Your task to perform on an android device: find snoozed emails in the gmail app Image 0: 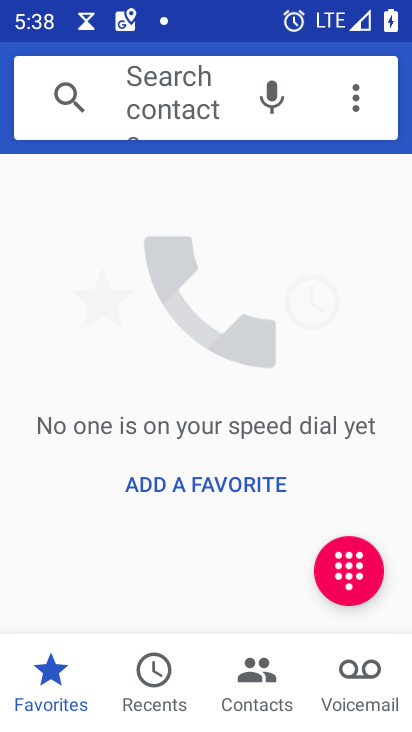
Step 0: press home button
Your task to perform on an android device: find snoozed emails in the gmail app Image 1: 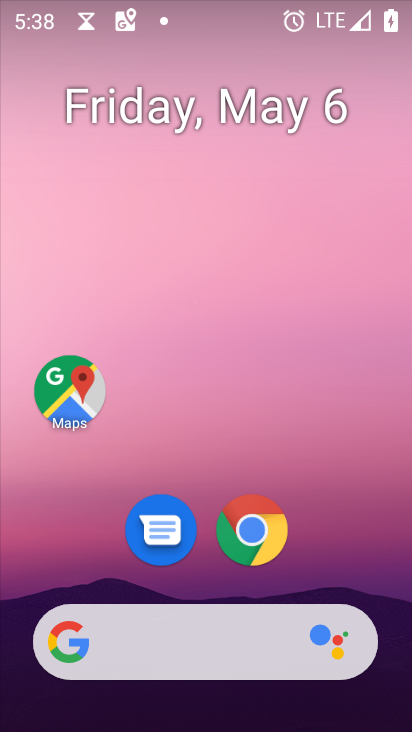
Step 1: drag from (355, 545) to (218, 79)
Your task to perform on an android device: find snoozed emails in the gmail app Image 2: 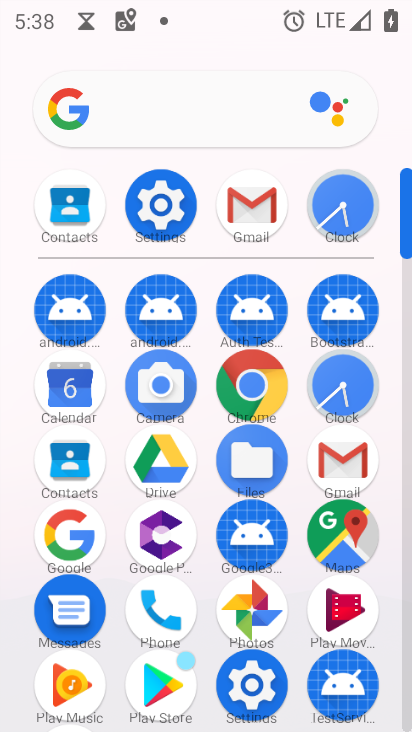
Step 2: click (344, 456)
Your task to perform on an android device: find snoozed emails in the gmail app Image 3: 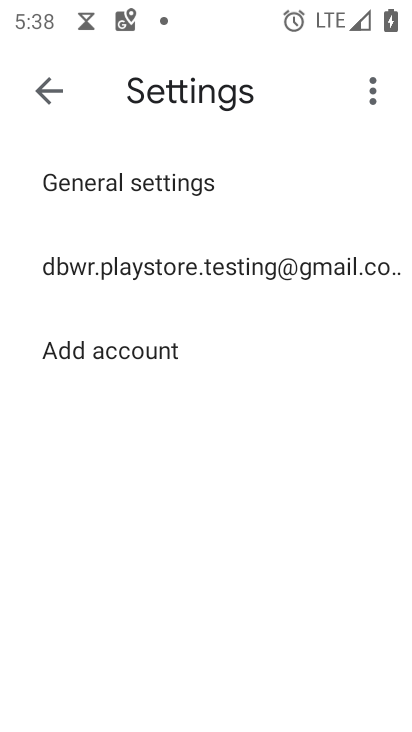
Step 3: click (45, 94)
Your task to perform on an android device: find snoozed emails in the gmail app Image 4: 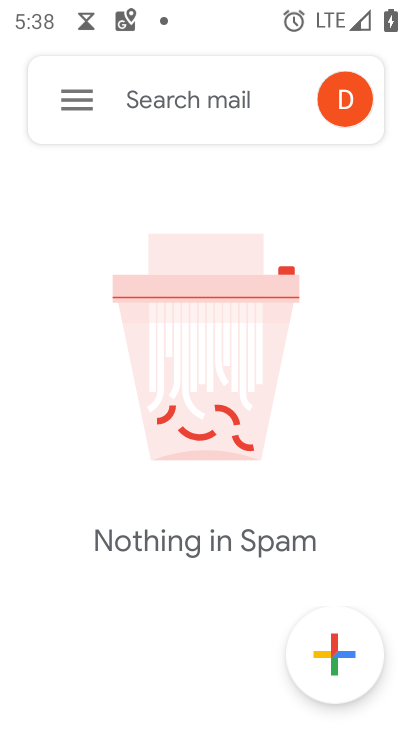
Step 4: click (75, 98)
Your task to perform on an android device: find snoozed emails in the gmail app Image 5: 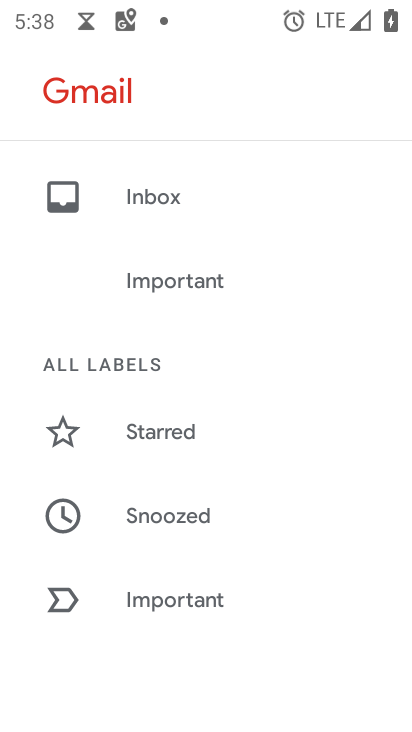
Step 5: click (194, 517)
Your task to perform on an android device: find snoozed emails in the gmail app Image 6: 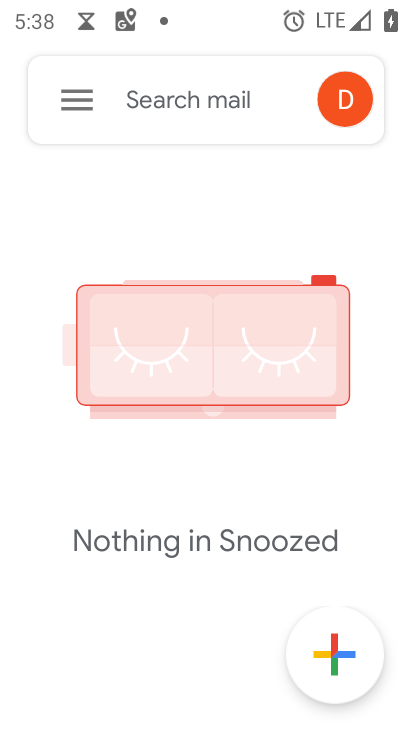
Step 6: task complete